Your task to perform on an android device: turn off javascript in the chrome app Image 0: 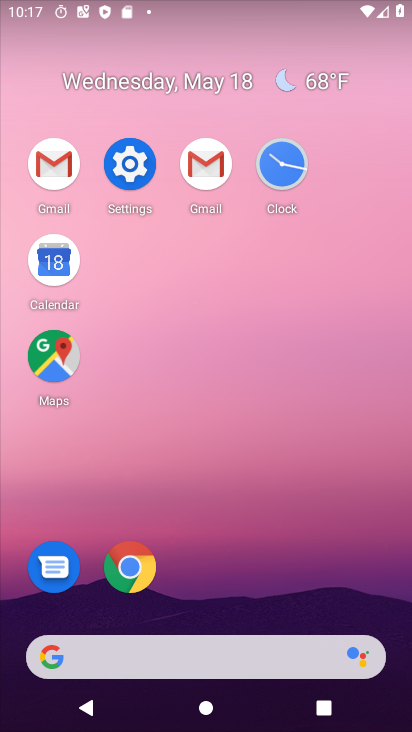
Step 0: click (124, 567)
Your task to perform on an android device: turn off javascript in the chrome app Image 1: 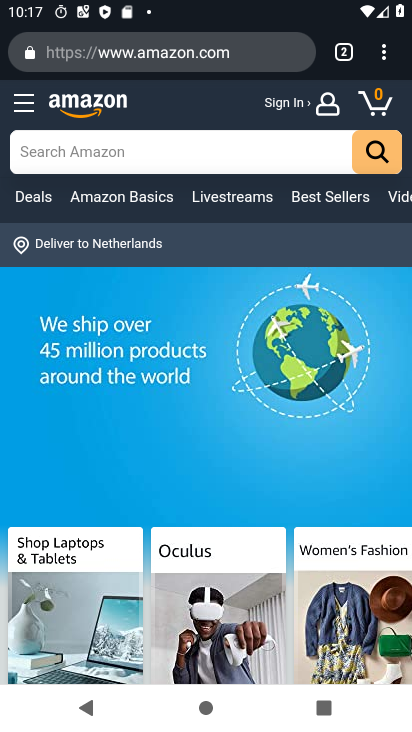
Step 1: click (393, 51)
Your task to perform on an android device: turn off javascript in the chrome app Image 2: 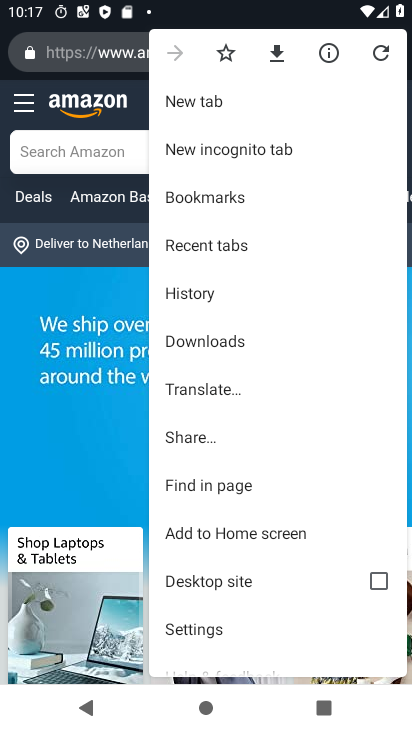
Step 2: drag from (256, 585) to (279, 113)
Your task to perform on an android device: turn off javascript in the chrome app Image 3: 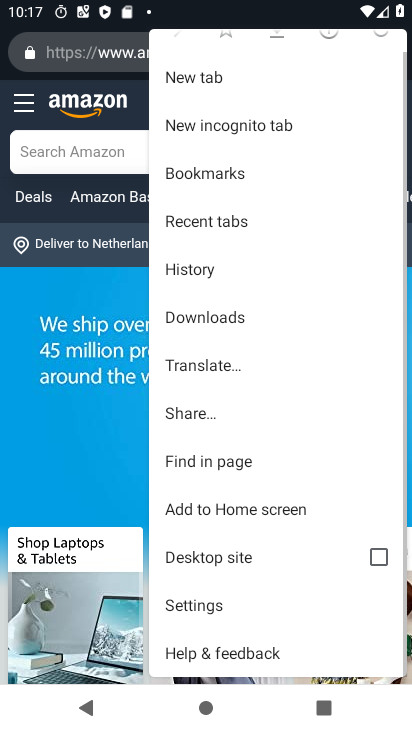
Step 3: click (241, 607)
Your task to perform on an android device: turn off javascript in the chrome app Image 4: 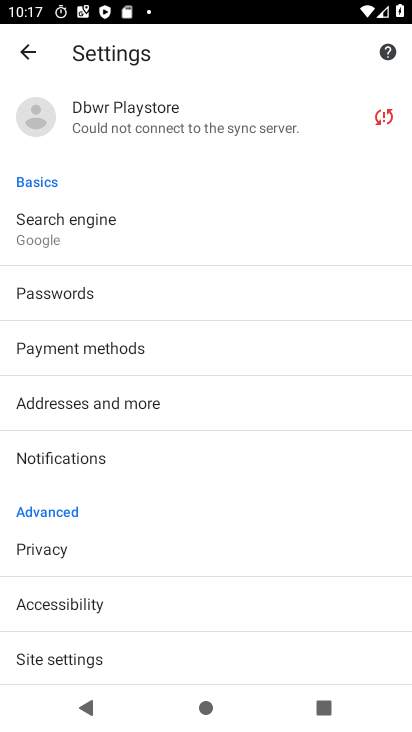
Step 4: drag from (241, 607) to (225, 167)
Your task to perform on an android device: turn off javascript in the chrome app Image 5: 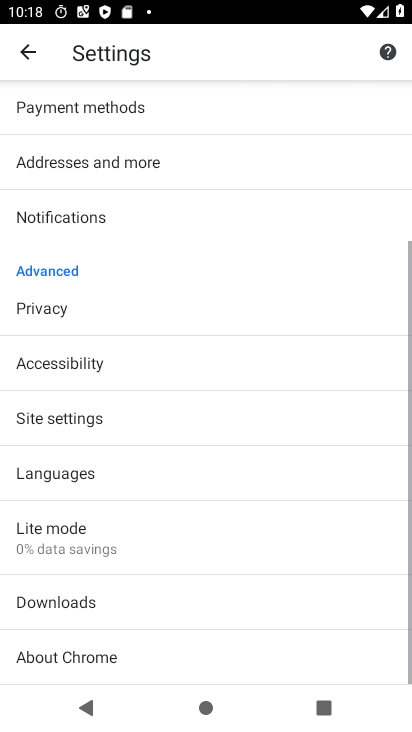
Step 5: click (152, 432)
Your task to perform on an android device: turn off javascript in the chrome app Image 6: 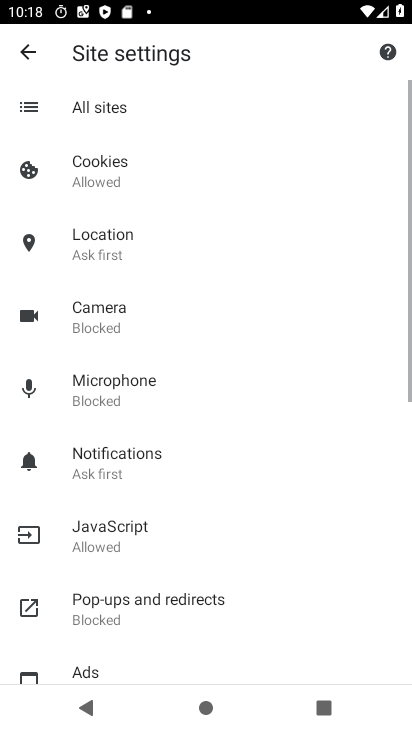
Step 6: drag from (184, 571) to (229, 125)
Your task to perform on an android device: turn off javascript in the chrome app Image 7: 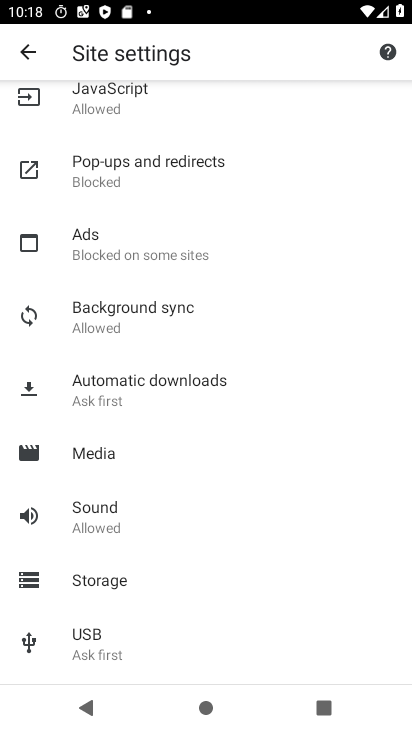
Step 7: drag from (206, 564) to (252, 250)
Your task to perform on an android device: turn off javascript in the chrome app Image 8: 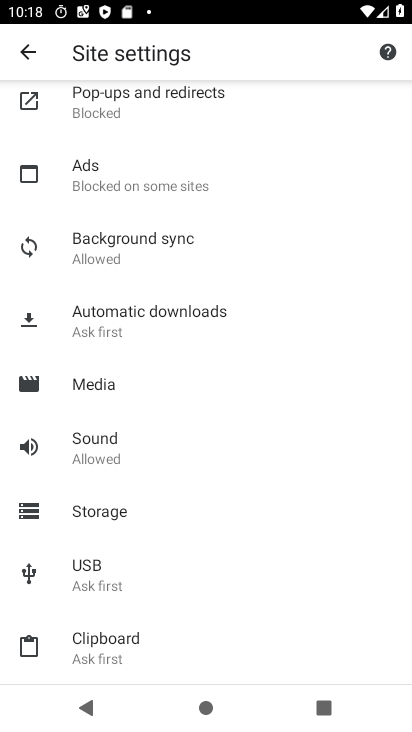
Step 8: drag from (281, 240) to (285, 626)
Your task to perform on an android device: turn off javascript in the chrome app Image 9: 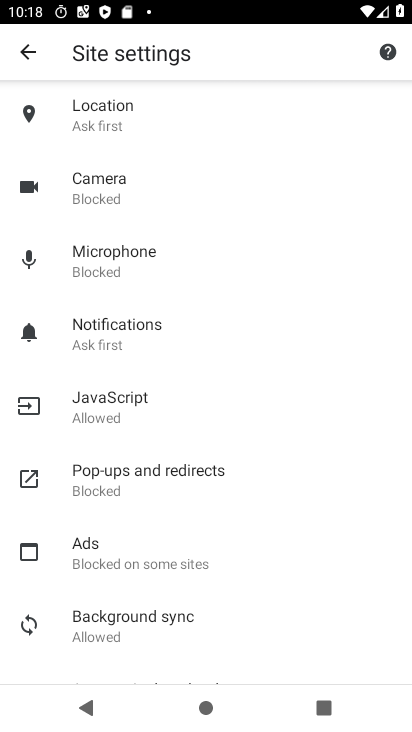
Step 9: click (168, 395)
Your task to perform on an android device: turn off javascript in the chrome app Image 10: 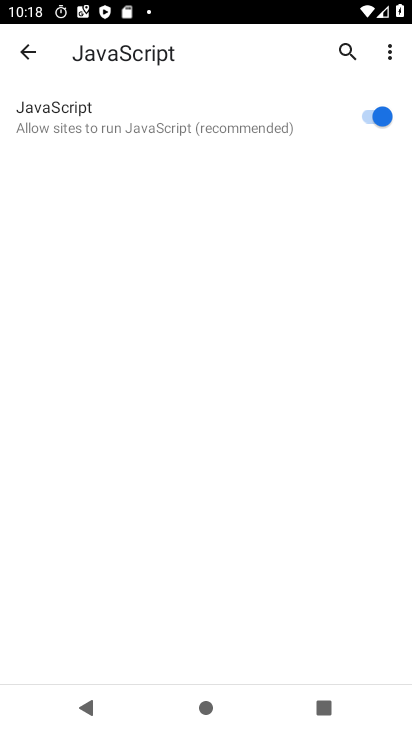
Step 10: click (395, 113)
Your task to perform on an android device: turn off javascript in the chrome app Image 11: 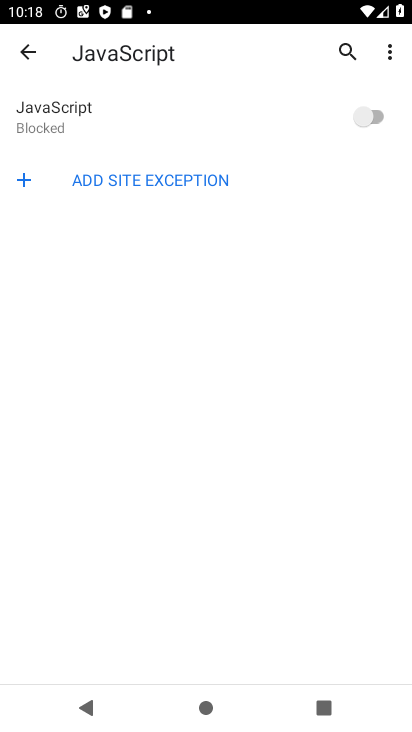
Step 11: task complete